Your task to perform on an android device: check storage Image 0: 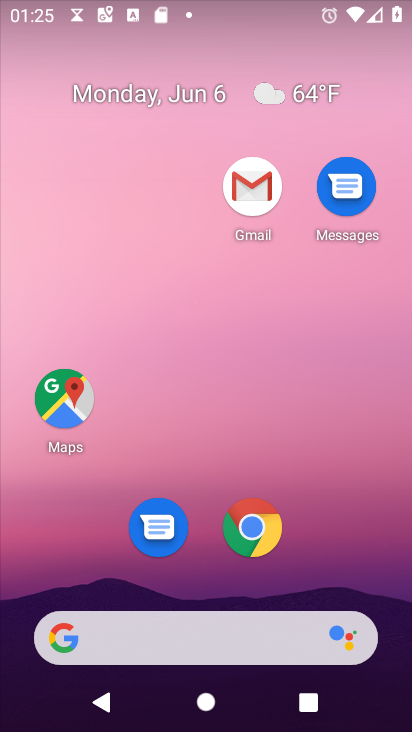
Step 0: drag from (337, 529) to (340, 41)
Your task to perform on an android device: check storage Image 1: 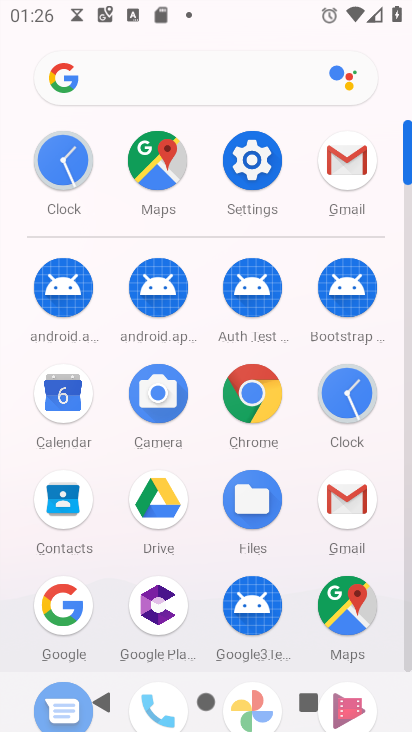
Step 1: click (263, 168)
Your task to perform on an android device: check storage Image 2: 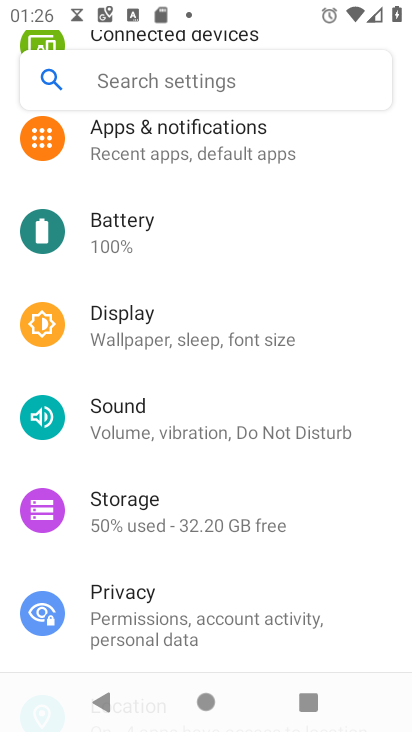
Step 2: click (193, 515)
Your task to perform on an android device: check storage Image 3: 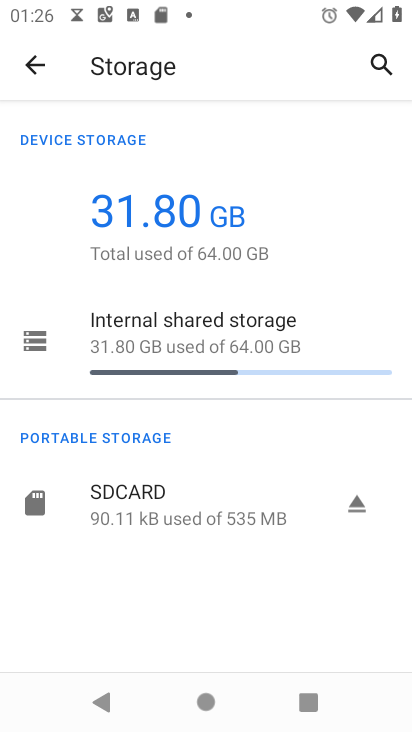
Step 3: task complete